Your task to perform on an android device: search for starred emails in the gmail app Image 0: 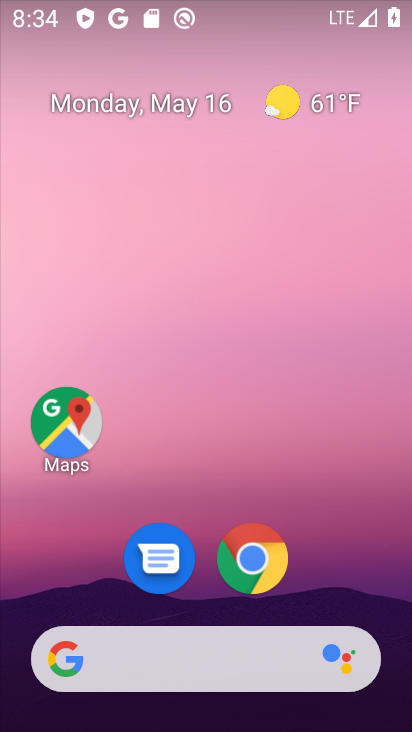
Step 0: drag from (202, 590) to (183, 105)
Your task to perform on an android device: search for starred emails in the gmail app Image 1: 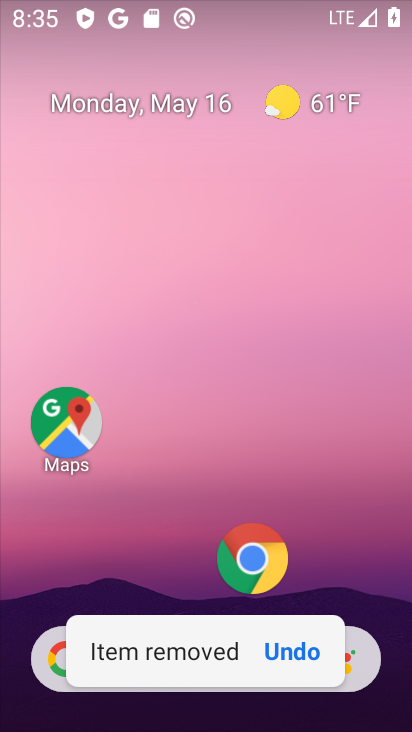
Step 1: click (160, 390)
Your task to perform on an android device: search for starred emails in the gmail app Image 2: 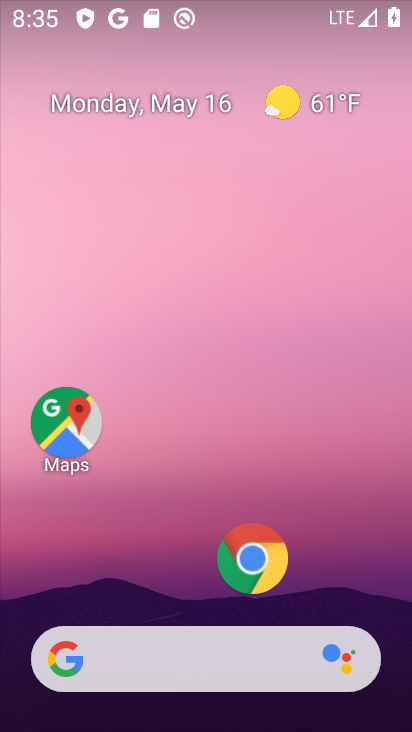
Step 2: drag from (147, 590) to (169, 127)
Your task to perform on an android device: search for starred emails in the gmail app Image 3: 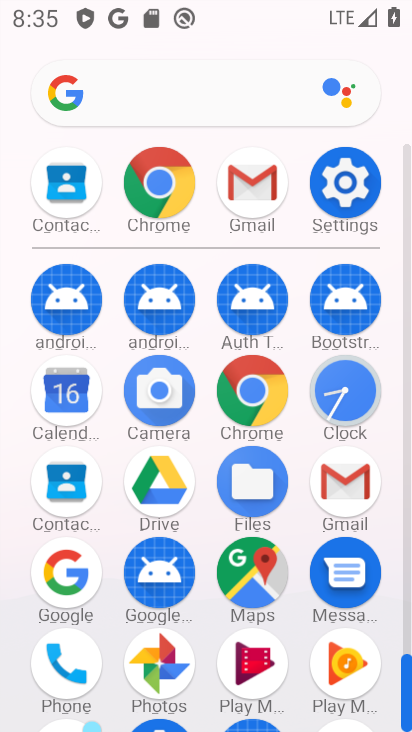
Step 3: click (249, 191)
Your task to perform on an android device: search for starred emails in the gmail app Image 4: 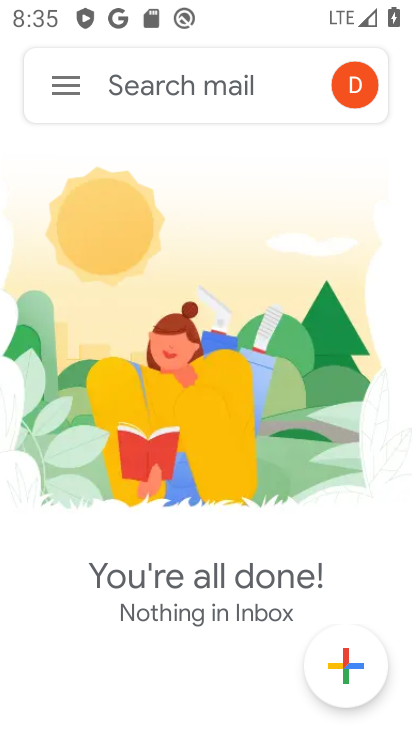
Step 4: click (35, 77)
Your task to perform on an android device: search for starred emails in the gmail app Image 5: 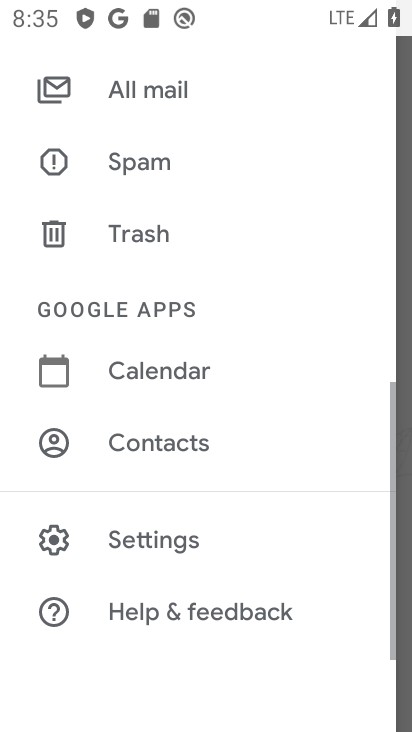
Step 5: drag from (195, 169) to (167, 671)
Your task to perform on an android device: search for starred emails in the gmail app Image 6: 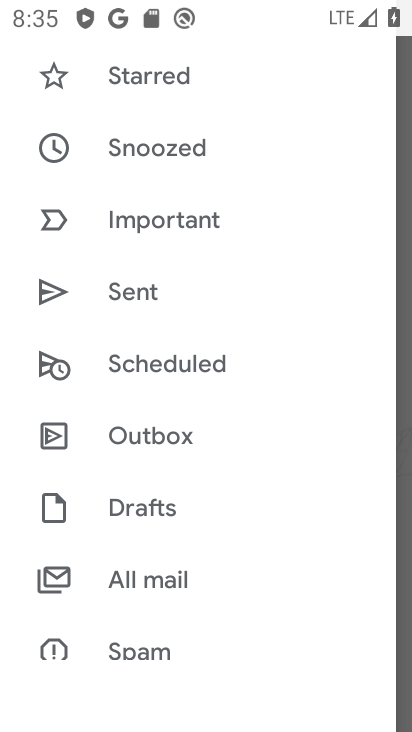
Step 6: click (171, 73)
Your task to perform on an android device: search for starred emails in the gmail app Image 7: 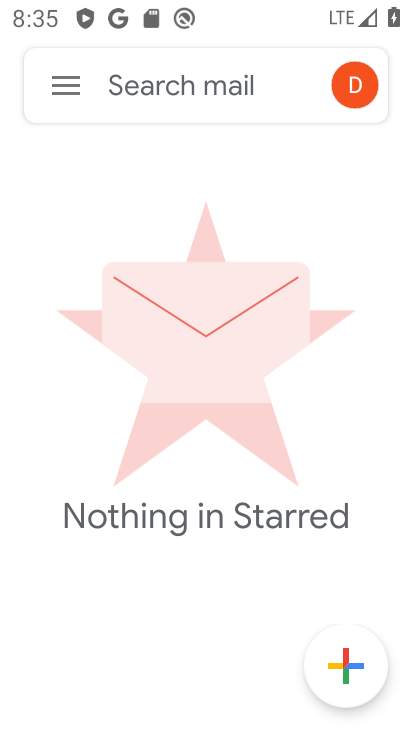
Step 7: task complete